Your task to perform on an android device: move a message to another label in the gmail app Image 0: 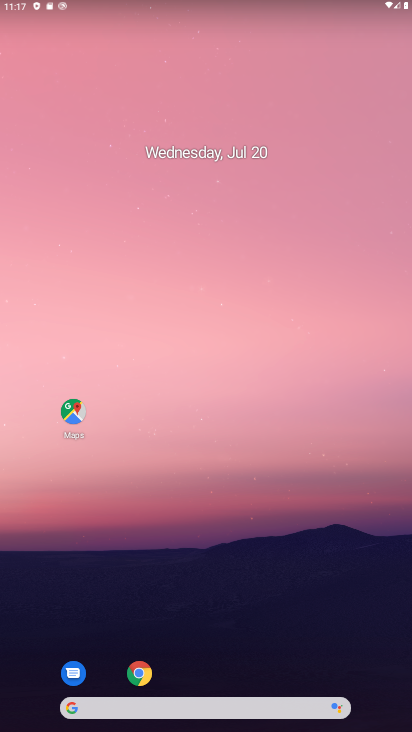
Step 0: press home button
Your task to perform on an android device: move a message to another label in the gmail app Image 1: 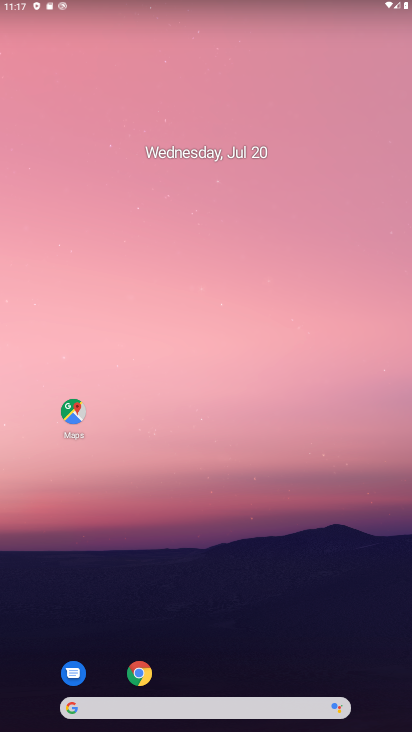
Step 1: click (261, 74)
Your task to perform on an android device: move a message to another label in the gmail app Image 2: 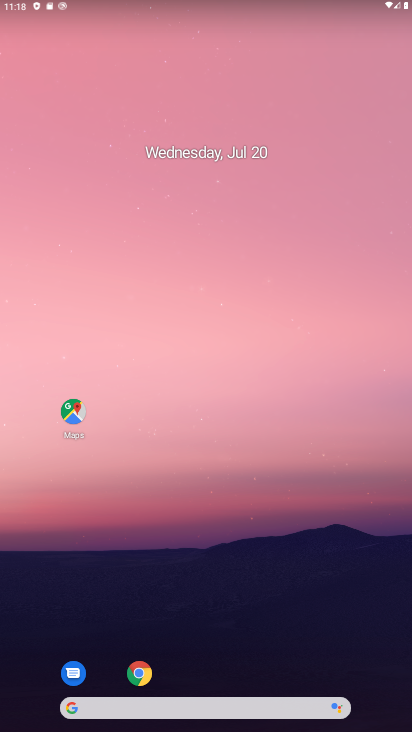
Step 2: drag from (360, 604) to (214, 66)
Your task to perform on an android device: move a message to another label in the gmail app Image 3: 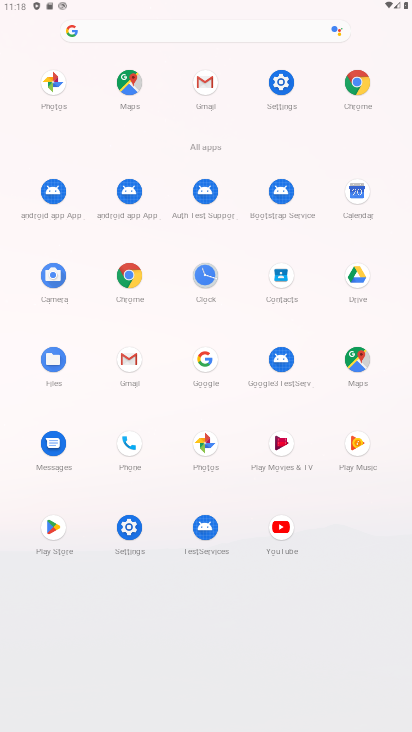
Step 3: click (208, 87)
Your task to perform on an android device: move a message to another label in the gmail app Image 4: 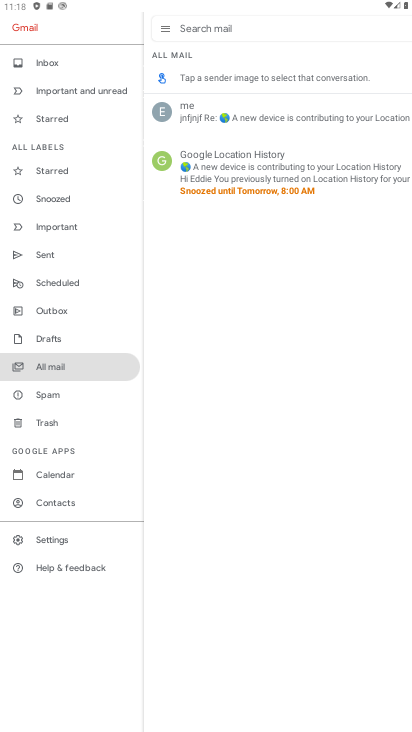
Step 4: click (329, 273)
Your task to perform on an android device: move a message to another label in the gmail app Image 5: 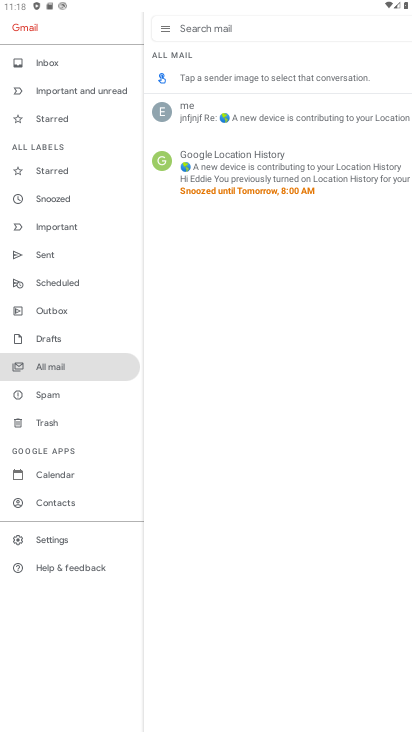
Step 5: click (163, 36)
Your task to perform on an android device: move a message to another label in the gmail app Image 6: 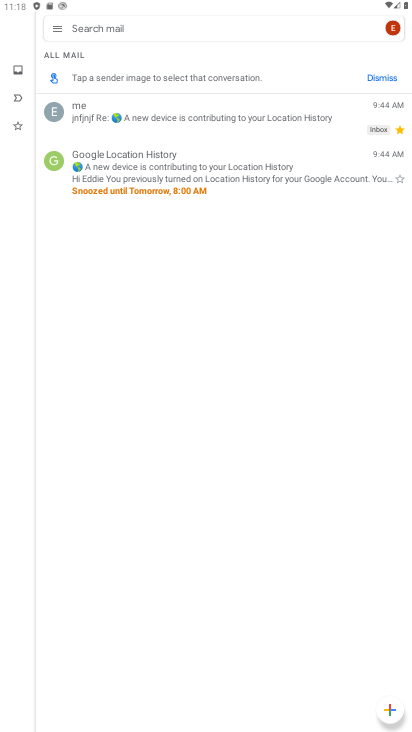
Step 6: task complete